Your task to perform on an android device: all mails in gmail Image 0: 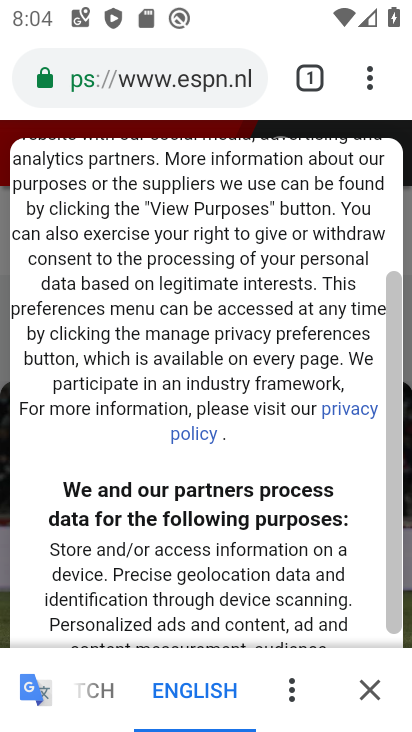
Step 0: press home button
Your task to perform on an android device: all mails in gmail Image 1: 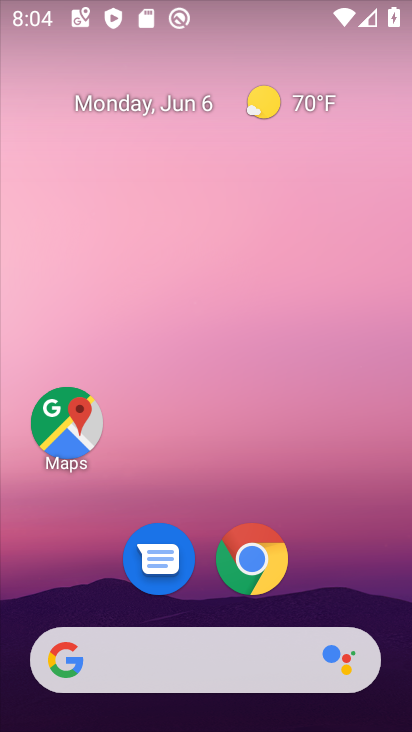
Step 1: drag from (197, 724) to (190, 130)
Your task to perform on an android device: all mails in gmail Image 2: 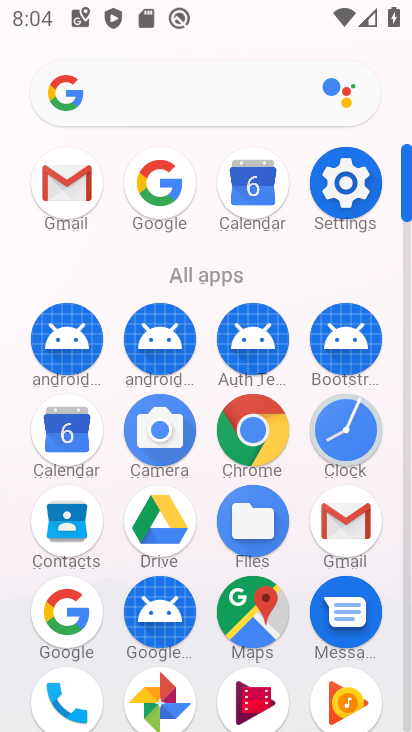
Step 2: click (343, 519)
Your task to perform on an android device: all mails in gmail Image 3: 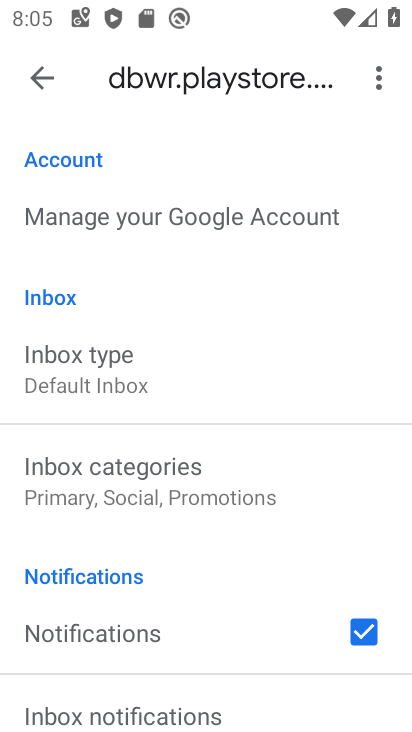
Step 3: click (42, 74)
Your task to perform on an android device: all mails in gmail Image 4: 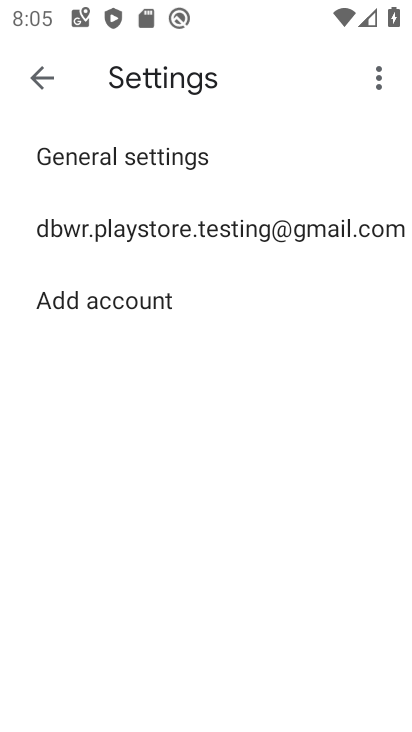
Step 4: click (42, 74)
Your task to perform on an android device: all mails in gmail Image 5: 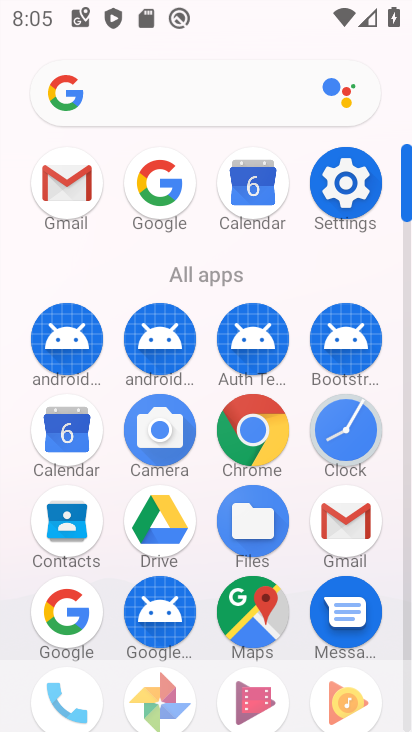
Step 5: click (56, 203)
Your task to perform on an android device: all mails in gmail Image 6: 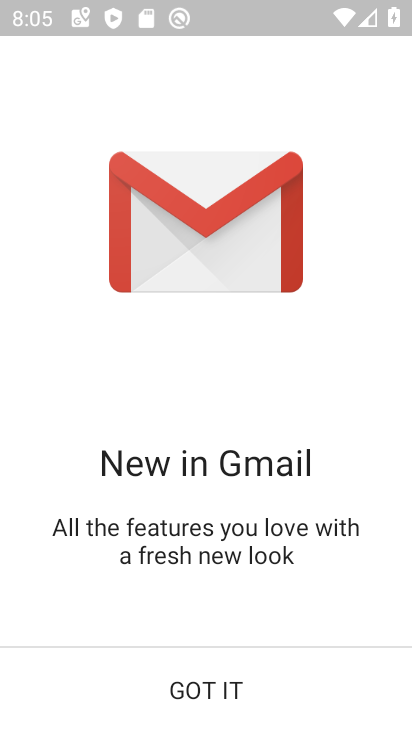
Step 6: click (215, 692)
Your task to perform on an android device: all mails in gmail Image 7: 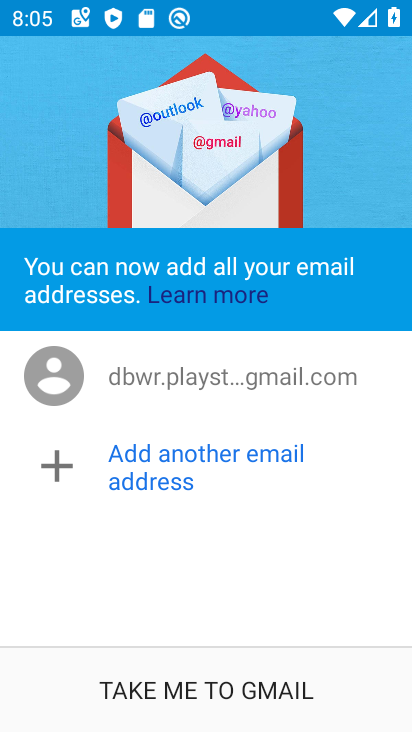
Step 7: click (200, 682)
Your task to perform on an android device: all mails in gmail Image 8: 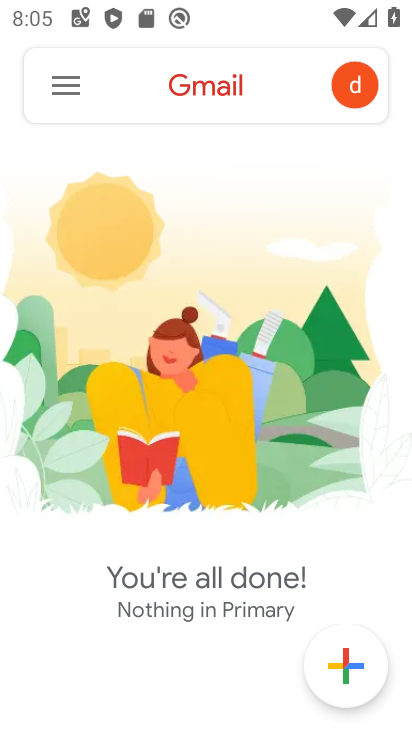
Step 8: click (65, 87)
Your task to perform on an android device: all mails in gmail Image 9: 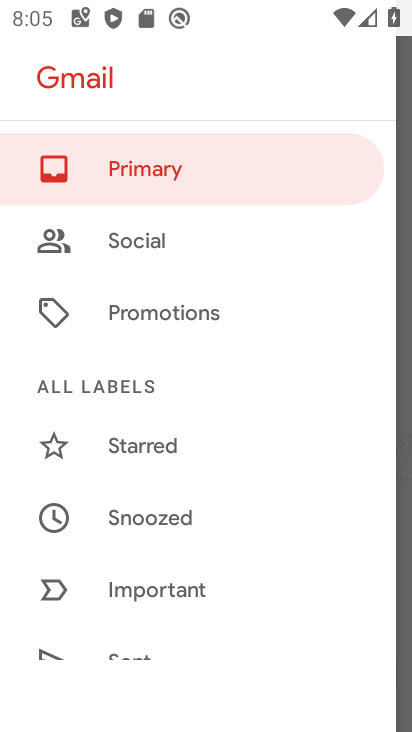
Step 9: drag from (221, 648) to (224, 270)
Your task to perform on an android device: all mails in gmail Image 10: 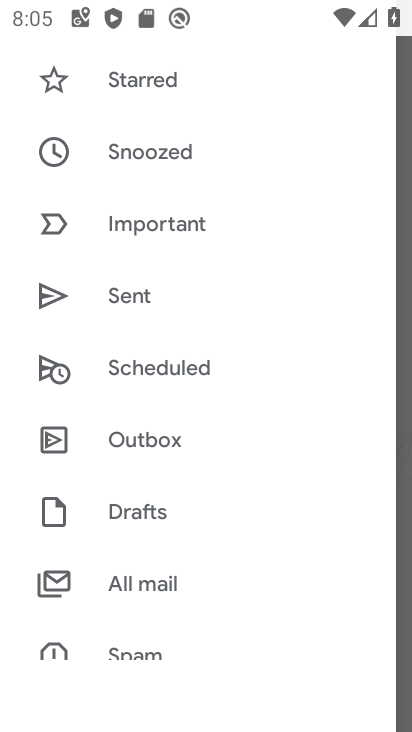
Step 10: click (140, 578)
Your task to perform on an android device: all mails in gmail Image 11: 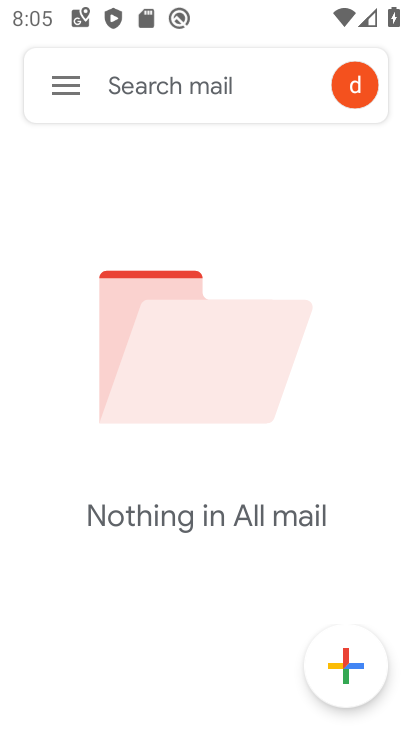
Step 11: task complete